Your task to perform on an android device: What's the weather today? Image 0: 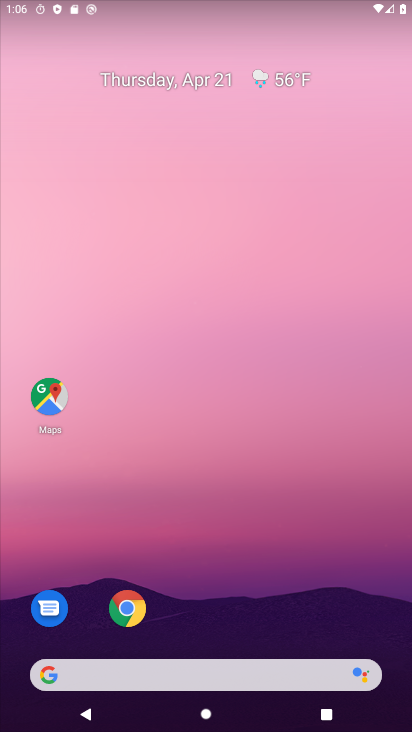
Step 0: drag from (311, 509) to (285, 670)
Your task to perform on an android device: What's the weather today? Image 1: 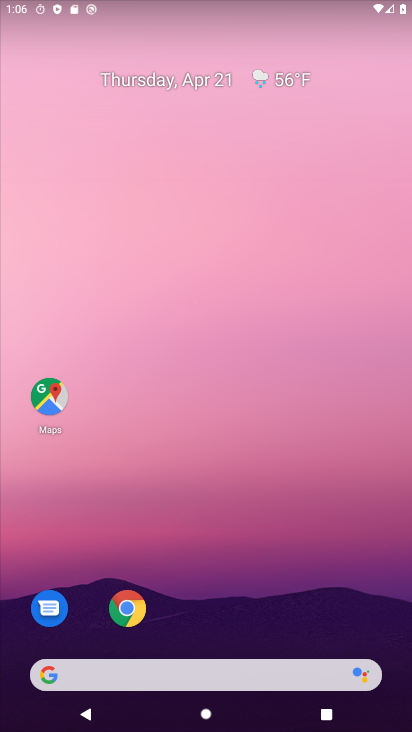
Step 1: click (285, 81)
Your task to perform on an android device: What's the weather today? Image 2: 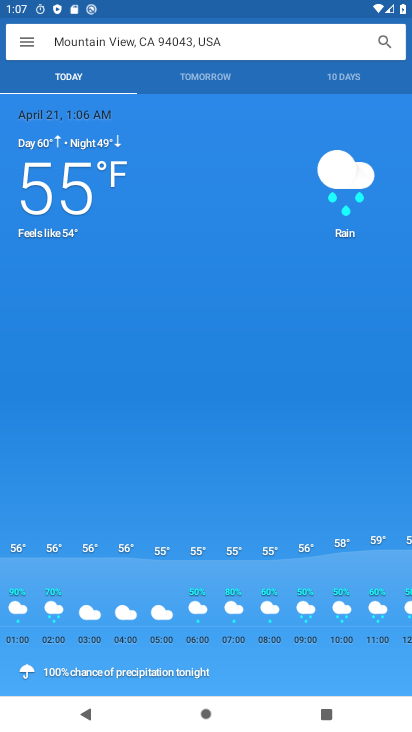
Step 2: task complete